Your task to perform on an android device: add a contact in the contacts app Image 0: 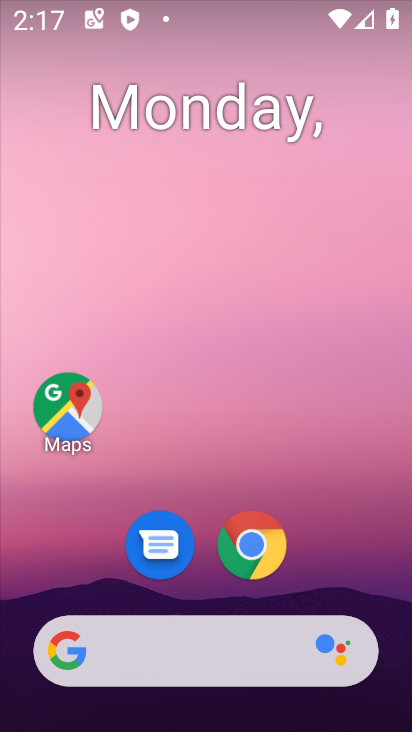
Step 0: drag from (169, 598) to (174, 261)
Your task to perform on an android device: add a contact in the contacts app Image 1: 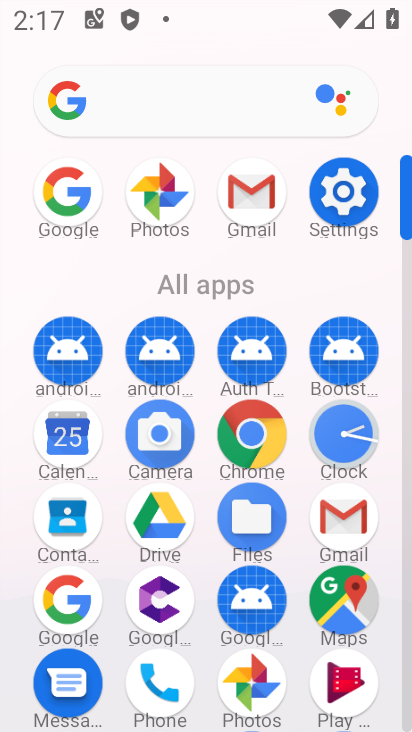
Step 1: click (71, 505)
Your task to perform on an android device: add a contact in the contacts app Image 2: 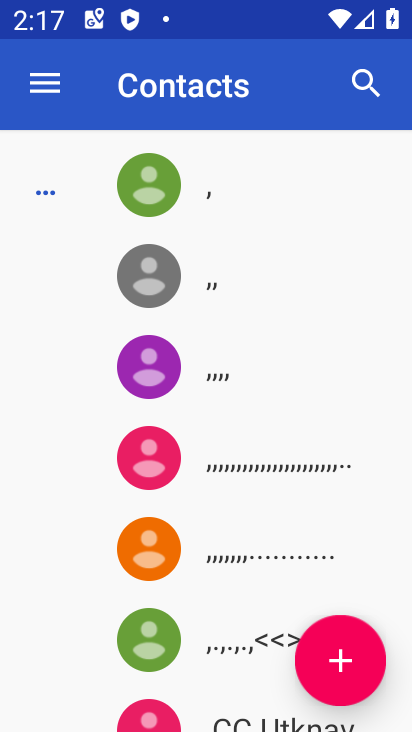
Step 2: click (329, 645)
Your task to perform on an android device: add a contact in the contacts app Image 3: 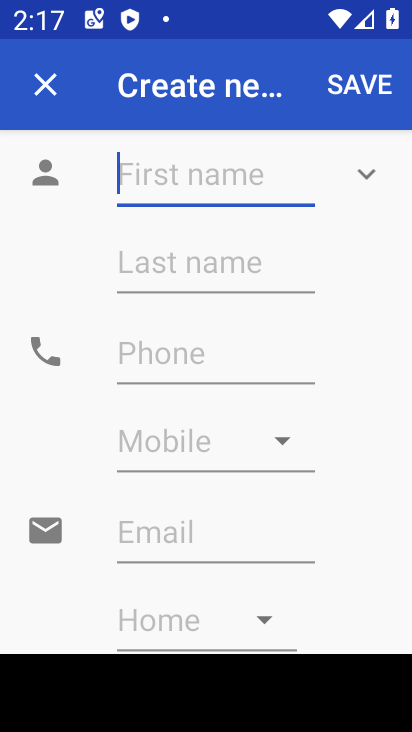
Step 3: click (148, 193)
Your task to perform on an android device: add a contact in the contacts app Image 4: 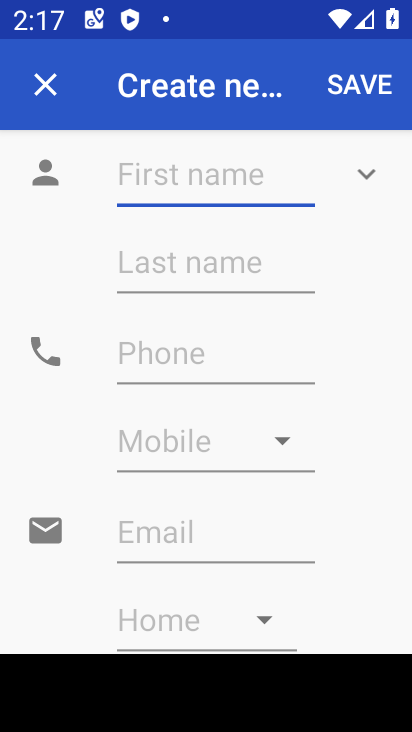
Step 4: type "ffbb"
Your task to perform on an android device: add a contact in the contacts app Image 5: 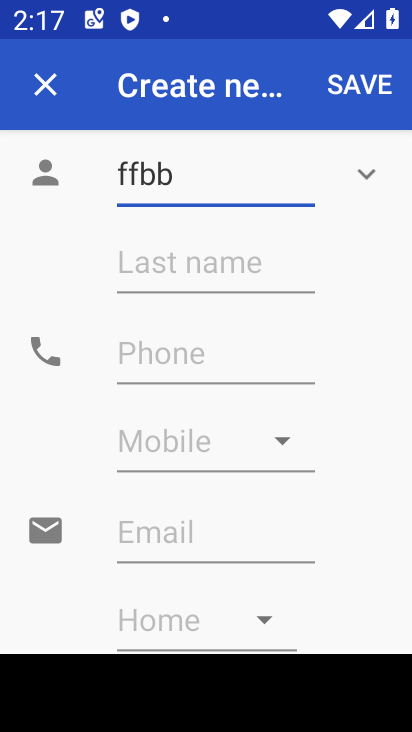
Step 5: click (187, 344)
Your task to perform on an android device: add a contact in the contacts app Image 6: 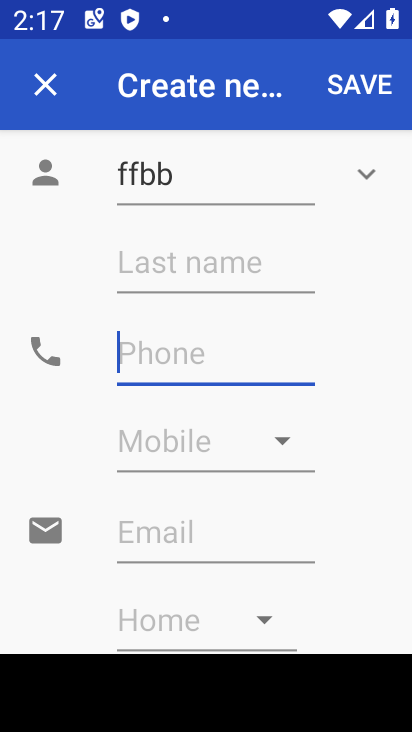
Step 6: type "8799"
Your task to perform on an android device: add a contact in the contacts app Image 7: 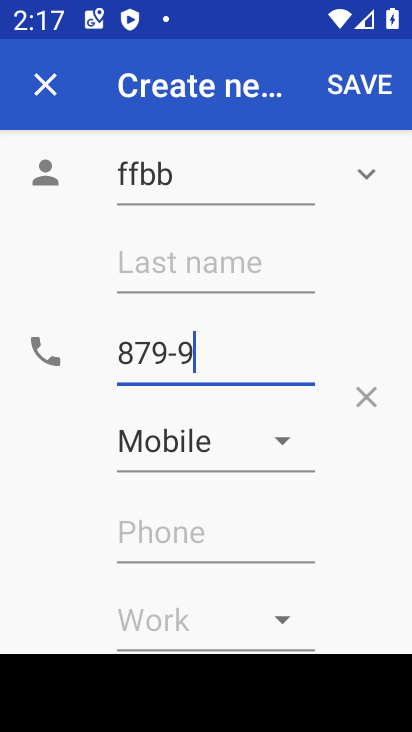
Step 7: click (353, 95)
Your task to perform on an android device: add a contact in the contacts app Image 8: 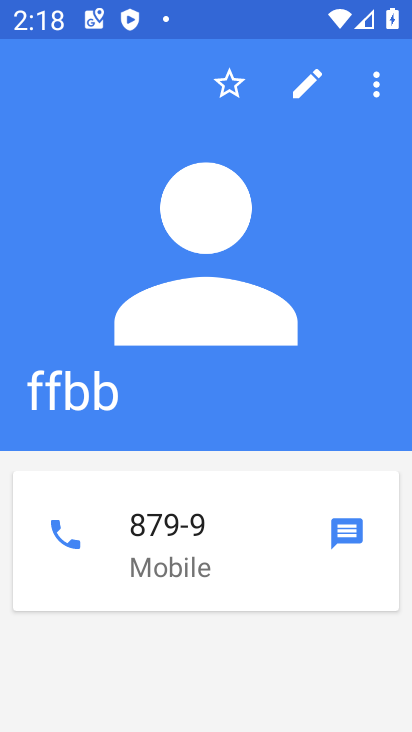
Step 8: task complete